Your task to perform on an android device: turn off notifications settings in the gmail app Image 0: 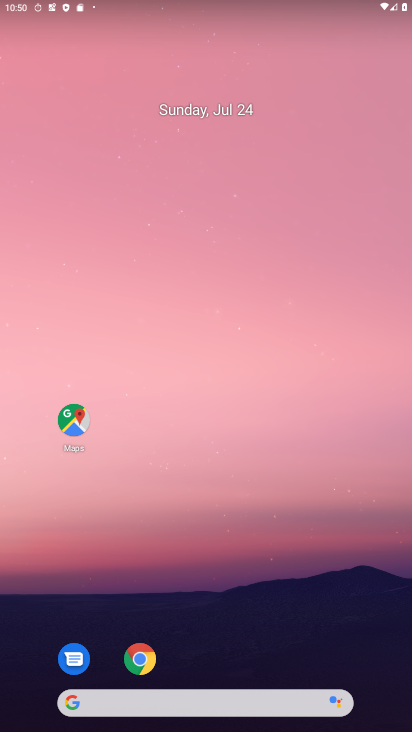
Step 0: drag from (226, 678) to (225, 73)
Your task to perform on an android device: turn off notifications settings in the gmail app Image 1: 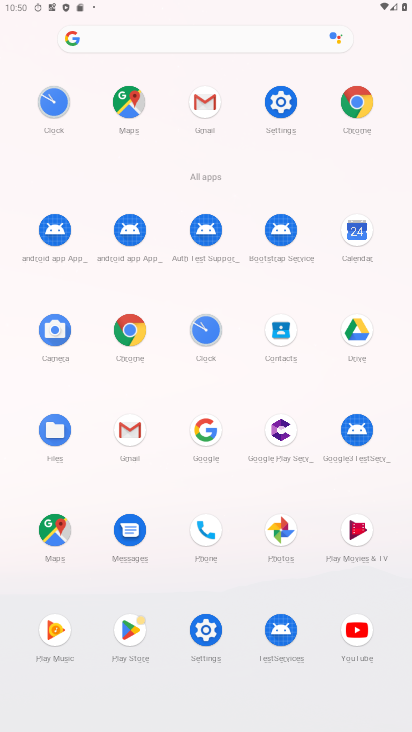
Step 1: click (206, 99)
Your task to perform on an android device: turn off notifications settings in the gmail app Image 2: 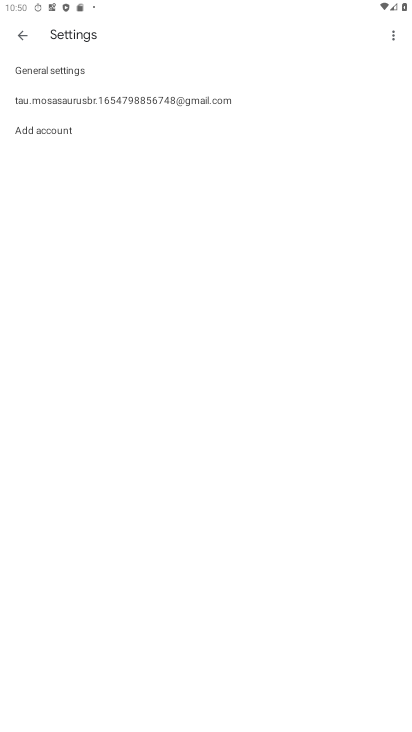
Step 2: click (82, 96)
Your task to perform on an android device: turn off notifications settings in the gmail app Image 3: 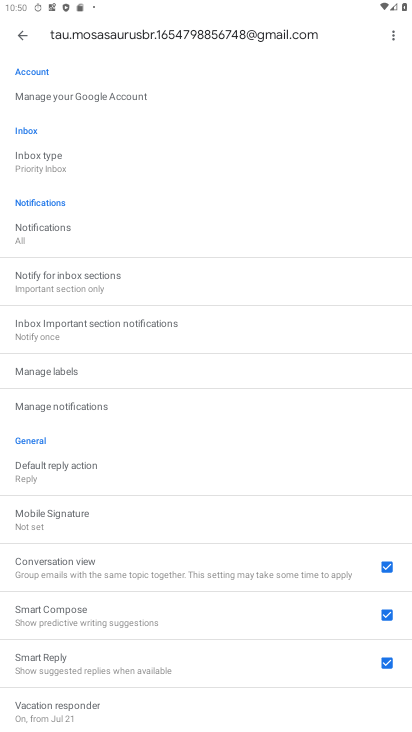
Step 3: click (54, 405)
Your task to perform on an android device: turn off notifications settings in the gmail app Image 4: 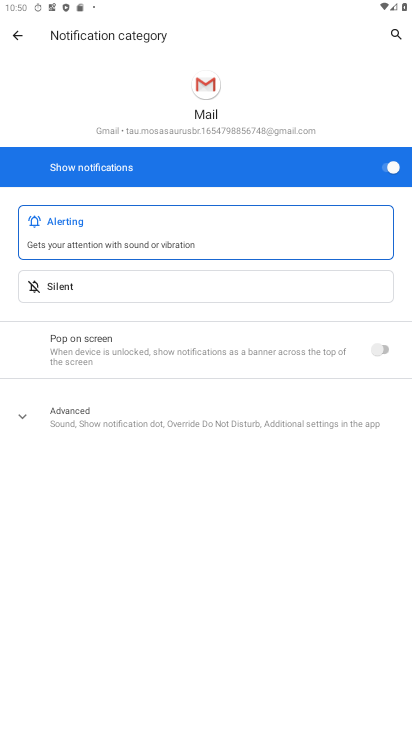
Step 4: click (387, 170)
Your task to perform on an android device: turn off notifications settings in the gmail app Image 5: 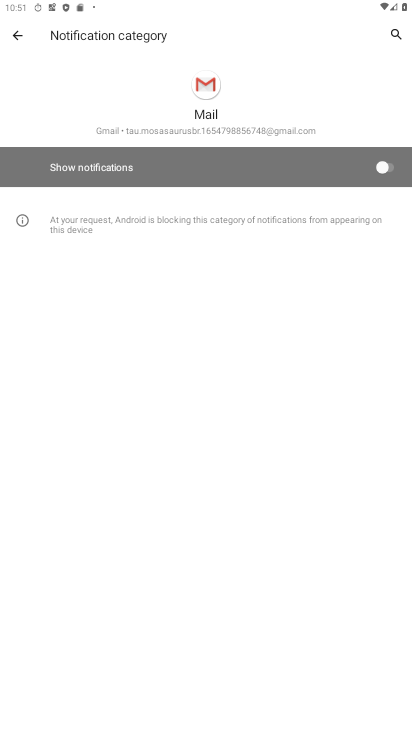
Step 5: task complete